Your task to perform on an android device: delete the emails in spam in the gmail app Image 0: 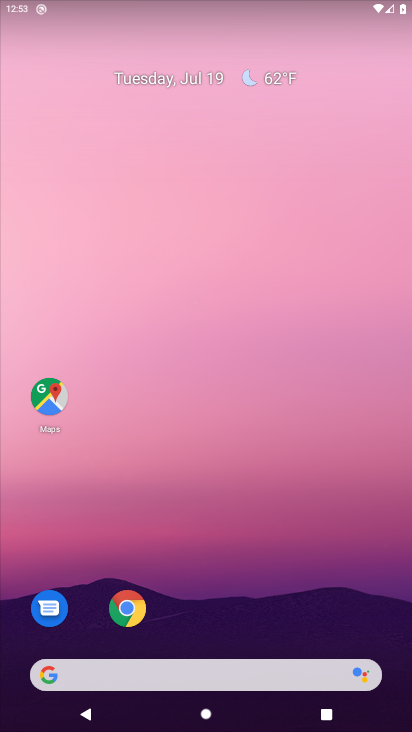
Step 0: drag from (223, 626) to (222, 130)
Your task to perform on an android device: delete the emails in spam in the gmail app Image 1: 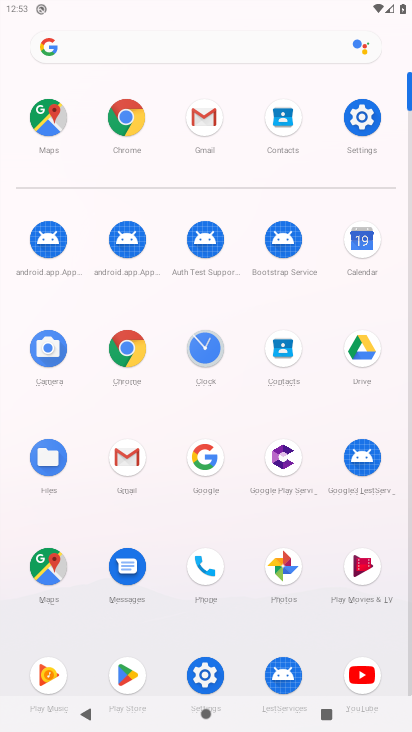
Step 1: click (122, 446)
Your task to perform on an android device: delete the emails in spam in the gmail app Image 2: 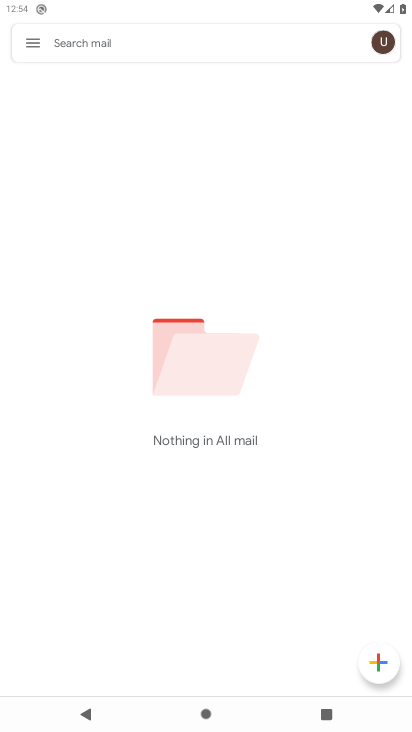
Step 2: task complete